Your task to perform on an android device: visit the assistant section in the google photos Image 0: 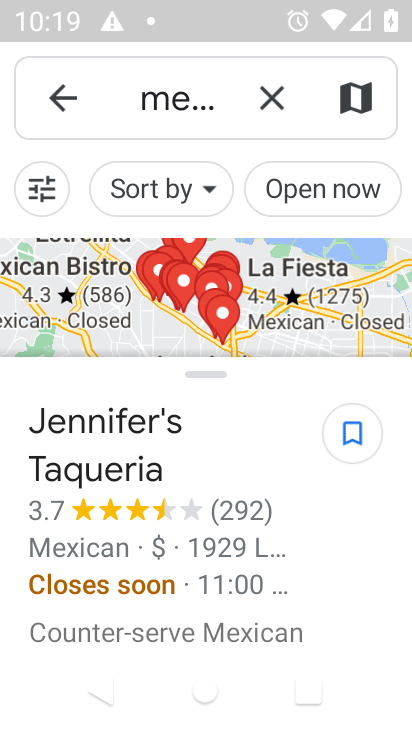
Step 0: press home button
Your task to perform on an android device: visit the assistant section in the google photos Image 1: 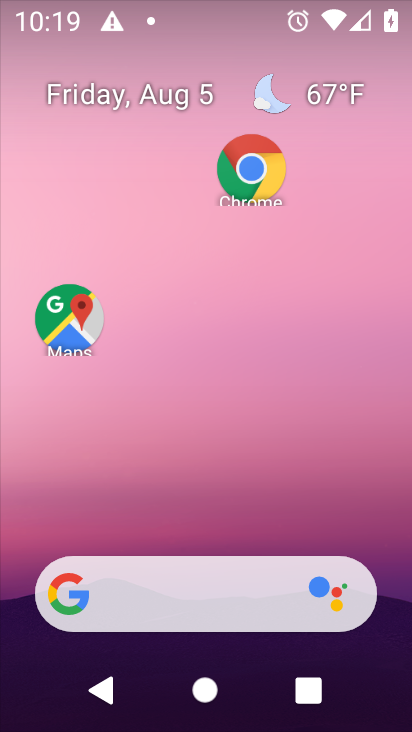
Step 1: drag from (200, 521) to (163, 127)
Your task to perform on an android device: visit the assistant section in the google photos Image 2: 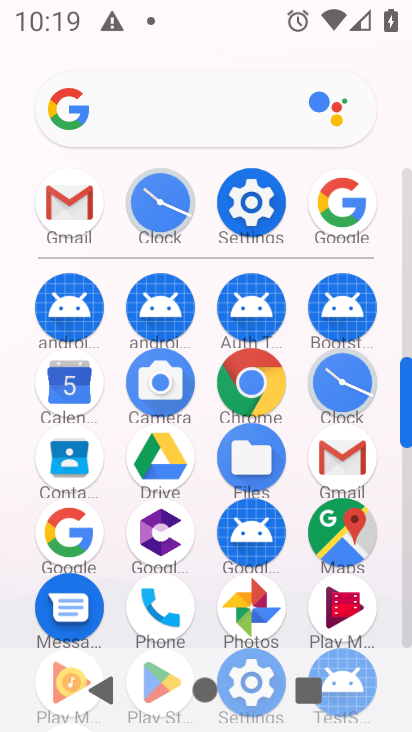
Step 2: click (242, 583)
Your task to perform on an android device: visit the assistant section in the google photos Image 3: 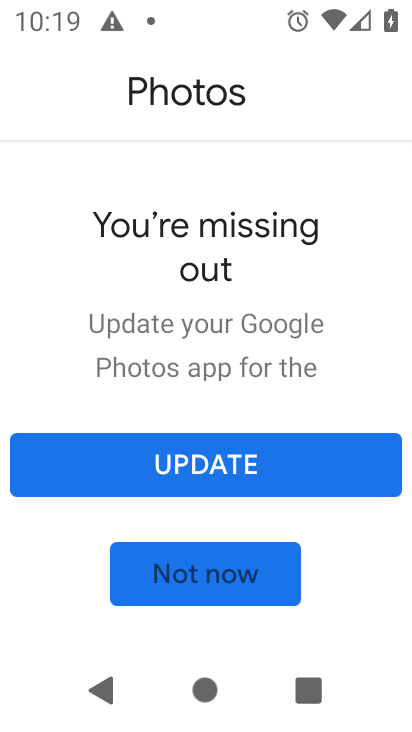
Step 3: click (211, 544)
Your task to perform on an android device: visit the assistant section in the google photos Image 4: 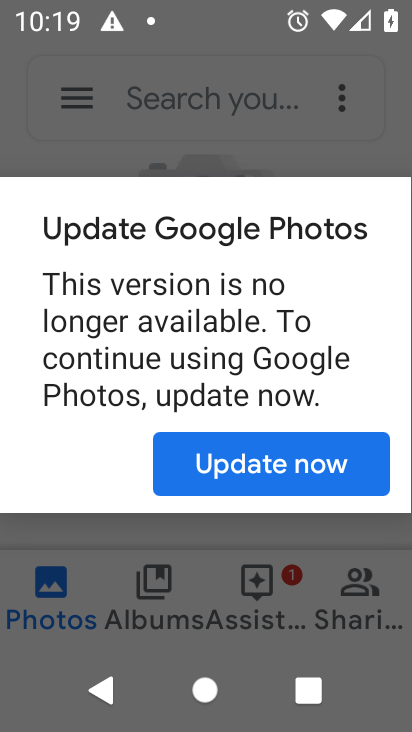
Step 4: click (279, 463)
Your task to perform on an android device: visit the assistant section in the google photos Image 5: 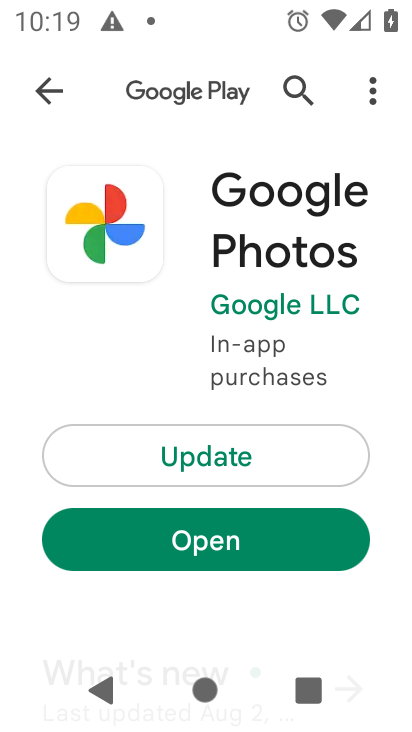
Step 5: click (264, 535)
Your task to perform on an android device: visit the assistant section in the google photos Image 6: 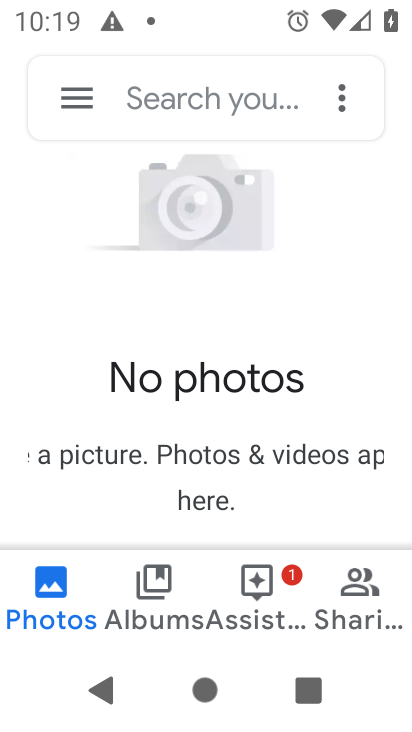
Step 6: click (260, 591)
Your task to perform on an android device: visit the assistant section in the google photos Image 7: 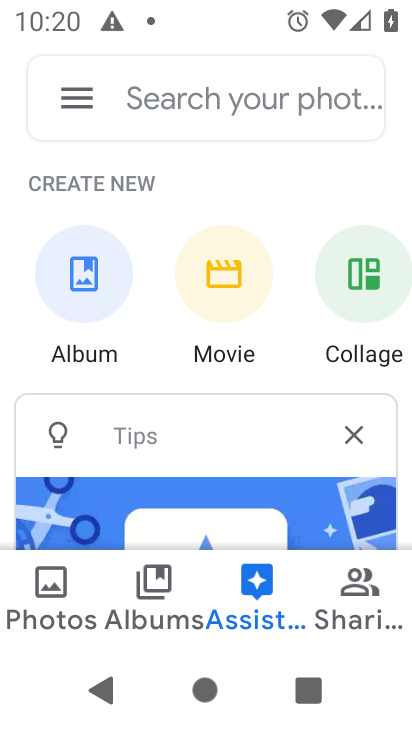
Step 7: task complete